Your task to perform on an android device: change the upload size in google photos Image 0: 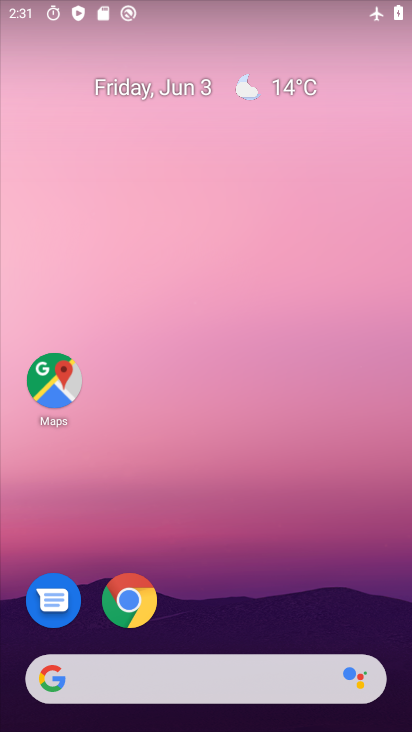
Step 0: drag from (257, 570) to (223, 45)
Your task to perform on an android device: change the upload size in google photos Image 1: 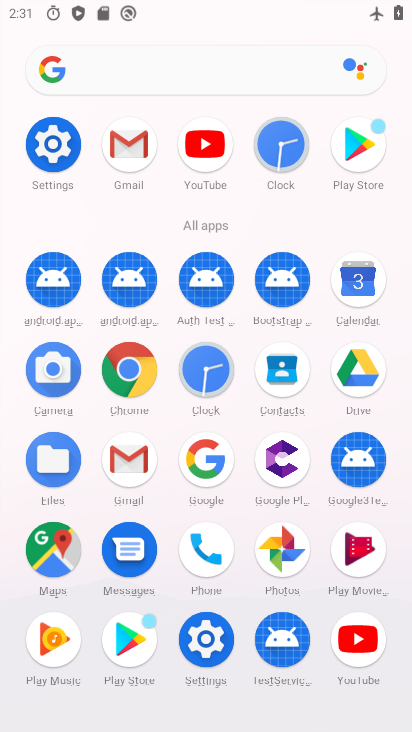
Step 1: click (281, 545)
Your task to perform on an android device: change the upload size in google photos Image 2: 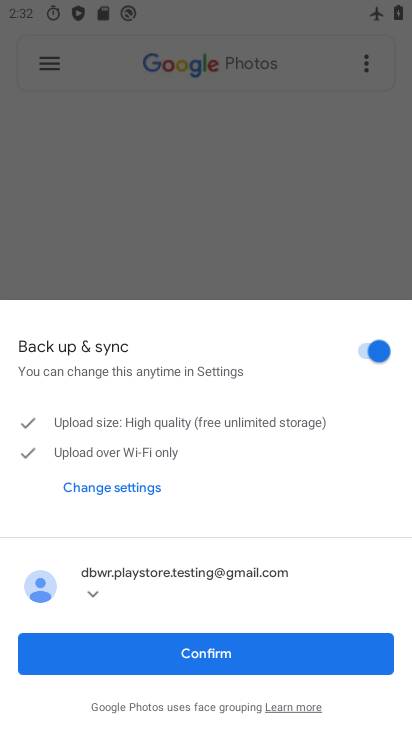
Step 2: click (225, 653)
Your task to perform on an android device: change the upload size in google photos Image 3: 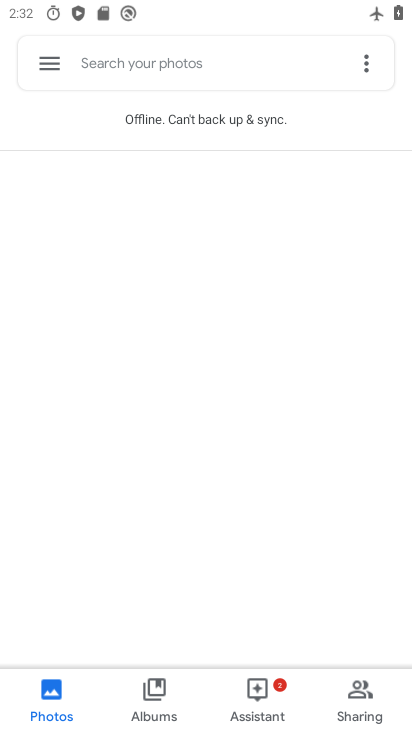
Step 3: click (254, 702)
Your task to perform on an android device: change the upload size in google photos Image 4: 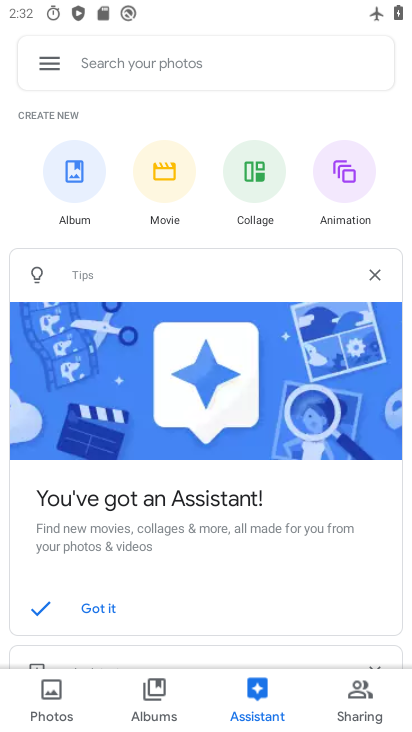
Step 4: click (66, 707)
Your task to perform on an android device: change the upload size in google photos Image 5: 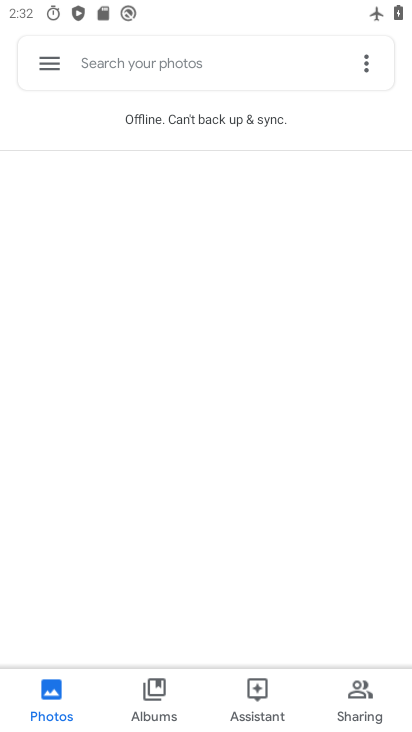
Step 5: click (46, 56)
Your task to perform on an android device: change the upload size in google photos Image 6: 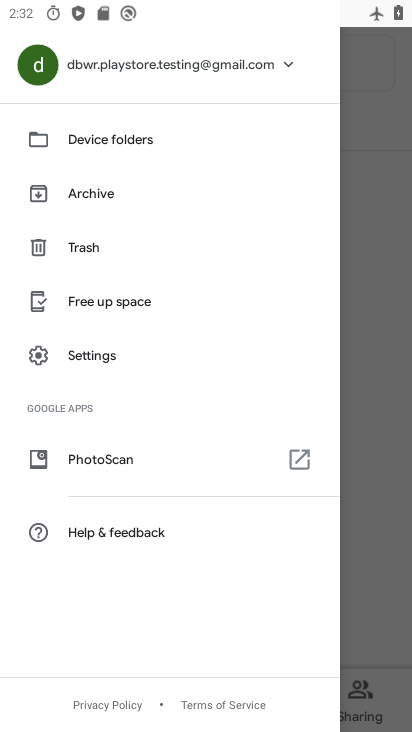
Step 6: click (109, 357)
Your task to perform on an android device: change the upload size in google photos Image 7: 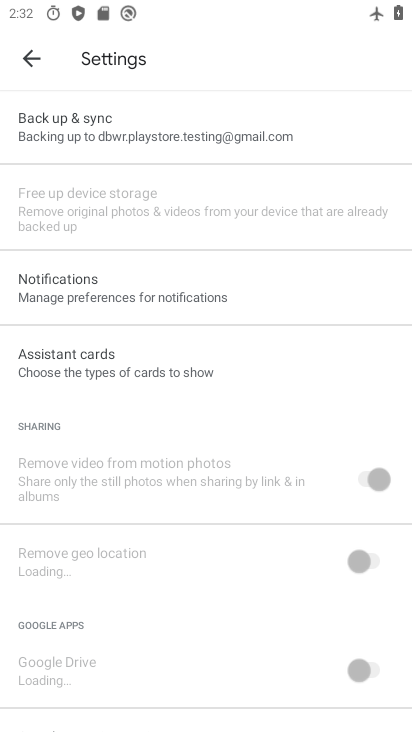
Step 7: drag from (164, 510) to (212, 141)
Your task to perform on an android device: change the upload size in google photos Image 8: 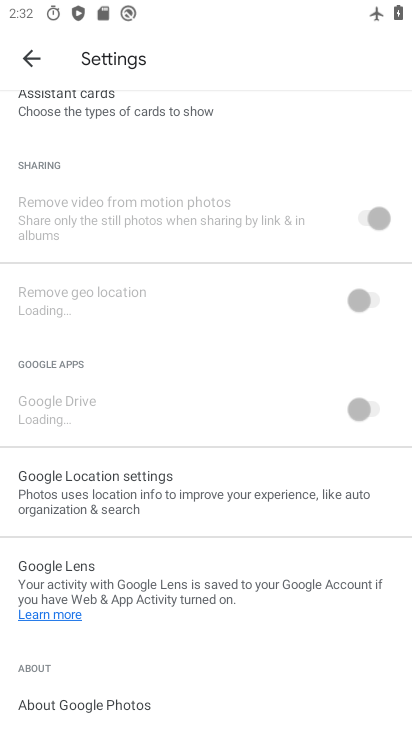
Step 8: drag from (201, 142) to (213, 579)
Your task to perform on an android device: change the upload size in google photos Image 9: 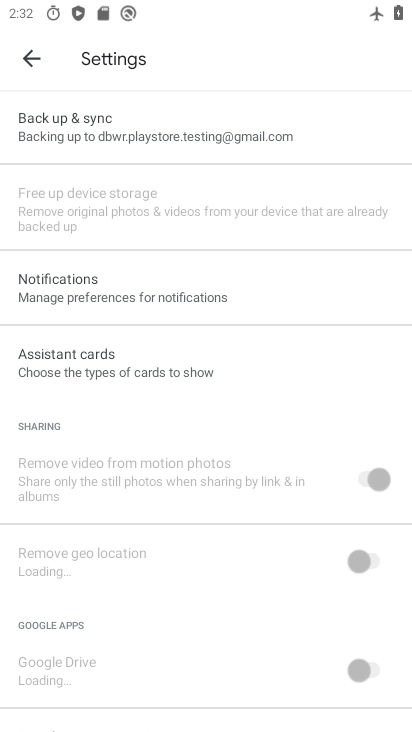
Step 9: drag from (193, 142) to (184, 559)
Your task to perform on an android device: change the upload size in google photos Image 10: 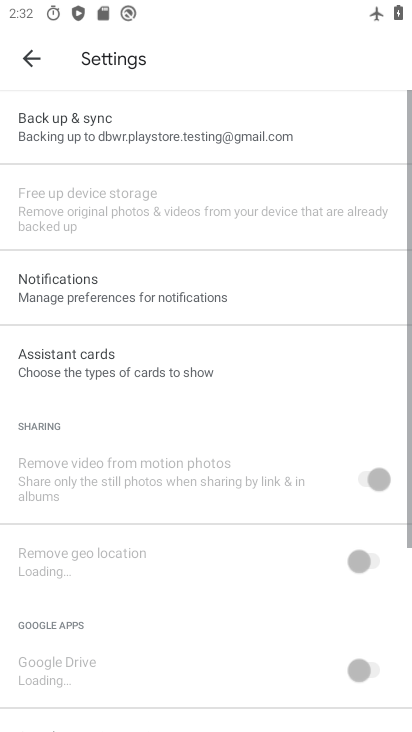
Step 10: click (173, 129)
Your task to perform on an android device: change the upload size in google photos Image 11: 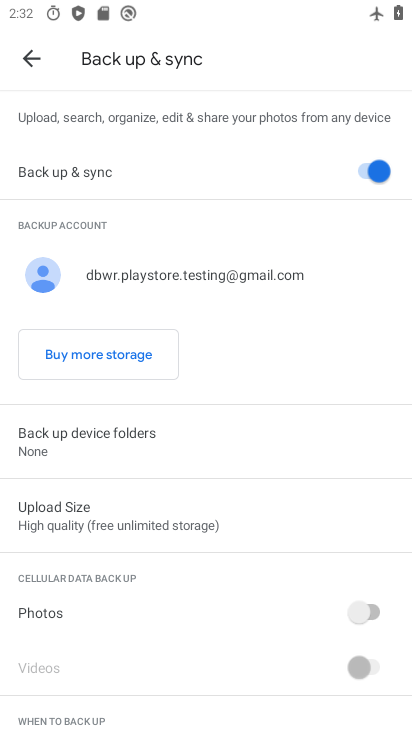
Step 11: click (225, 512)
Your task to perform on an android device: change the upload size in google photos Image 12: 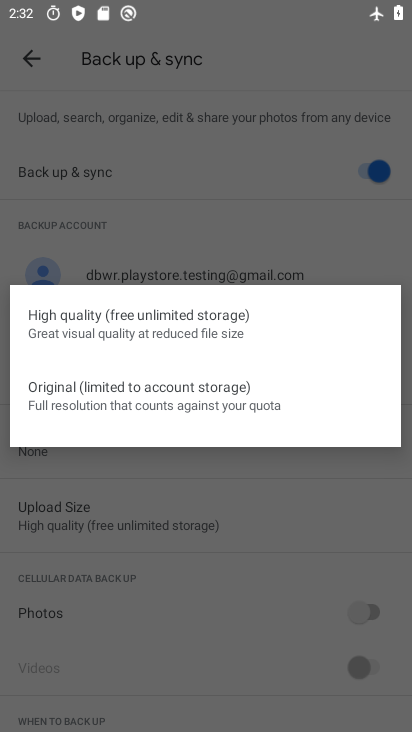
Step 12: click (193, 414)
Your task to perform on an android device: change the upload size in google photos Image 13: 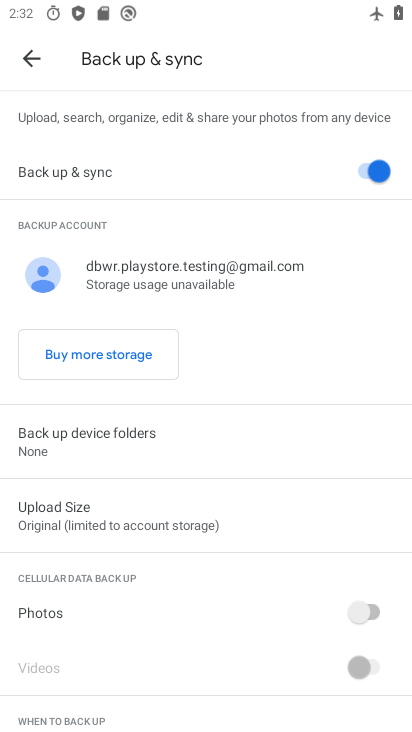
Step 13: task complete